Your task to perform on an android device: remove spam from my inbox in the gmail app Image 0: 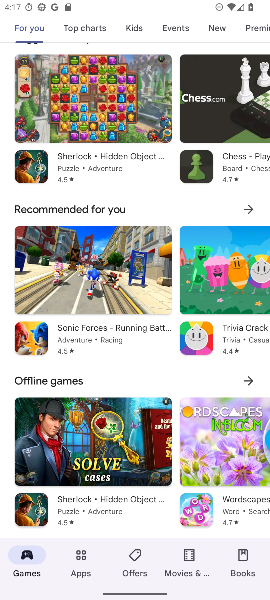
Step 0: press home button
Your task to perform on an android device: remove spam from my inbox in the gmail app Image 1: 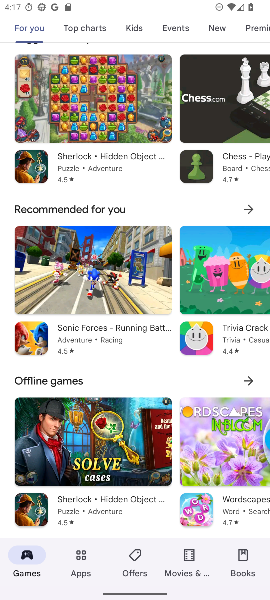
Step 1: press home button
Your task to perform on an android device: remove spam from my inbox in the gmail app Image 2: 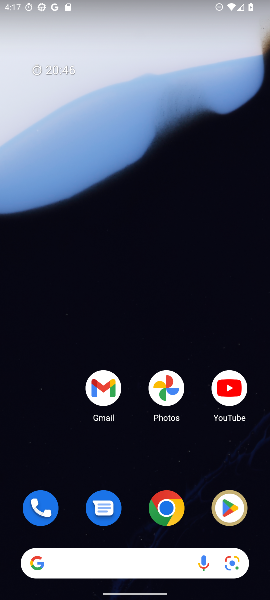
Step 2: drag from (136, 508) to (197, 116)
Your task to perform on an android device: remove spam from my inbox in the gmail app Image 3: 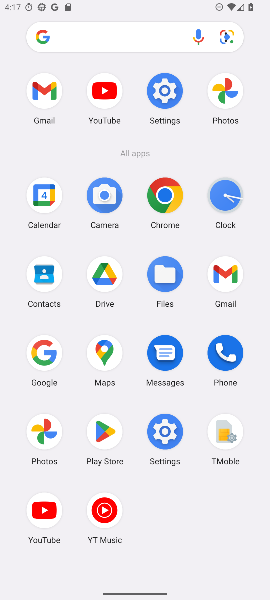
Step 3: click (235, 261)
Your task to perform on an android device: remove spam from my inbox in the gmail app Image 4: 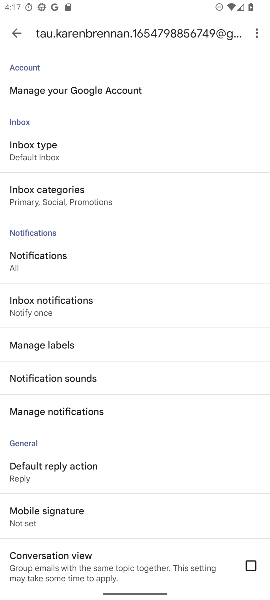
Step 4: click (16, 43)
Your task to perform on an android device: remove spam from my inbox in the gmail app Image 5: 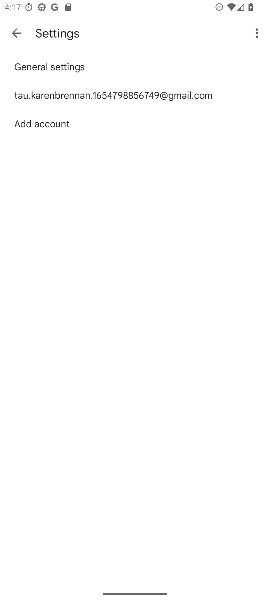
Step 5: click (16, 43)
Your task to perform on an android device: remove spam from my inbox in the gmail app Image 6: 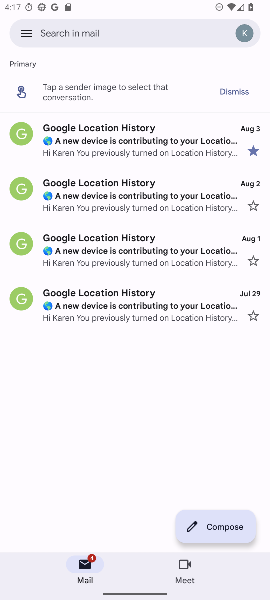
Step 6: click (21, 34)
Your task to perform on an android device: remove spam from my inbox in the gmail app Image 7: 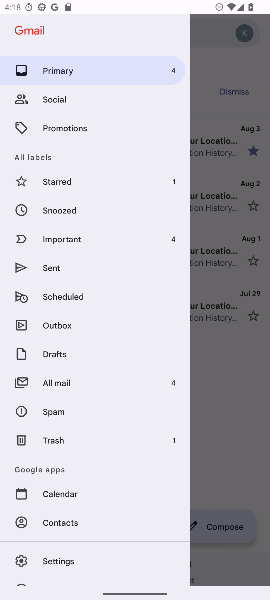
Step 7: click (58, 407)
Your task to perform on an android device: remove spam from my inbox in the gmail app Image 8: 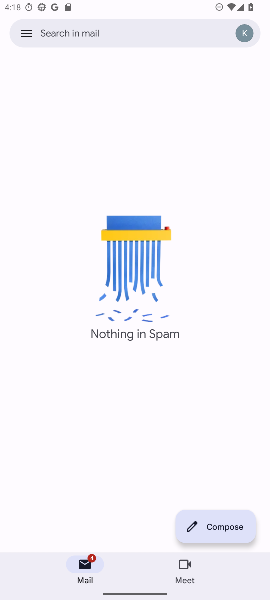
Step 8: task complete